Your task to perform on an android device: stop showing notifications on the lock screen Image 0: 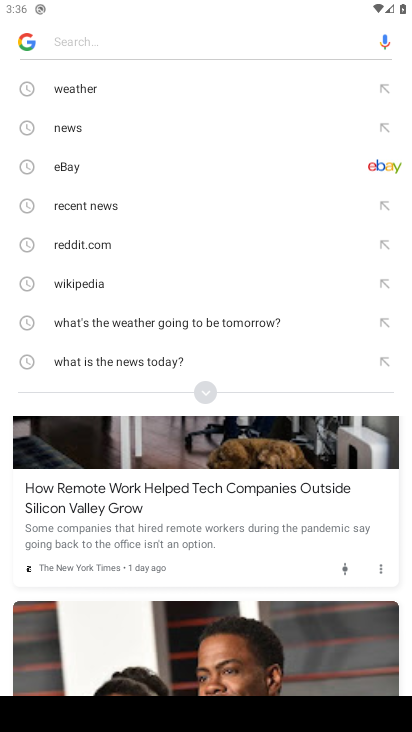
Step 0: press back button
Your task to perform on an android device: stop showing notifications on the lock screen Image 1: 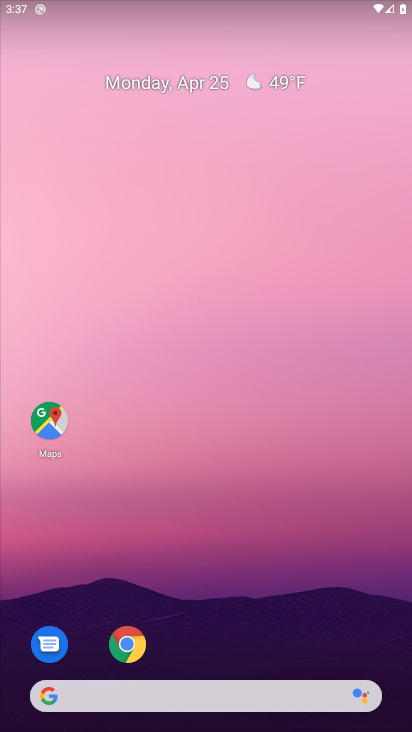
Step 1: drag from (270, 653) to (301, 213)
Your task to perform on an android device: stop showing notifications on the lock screen Image 2: 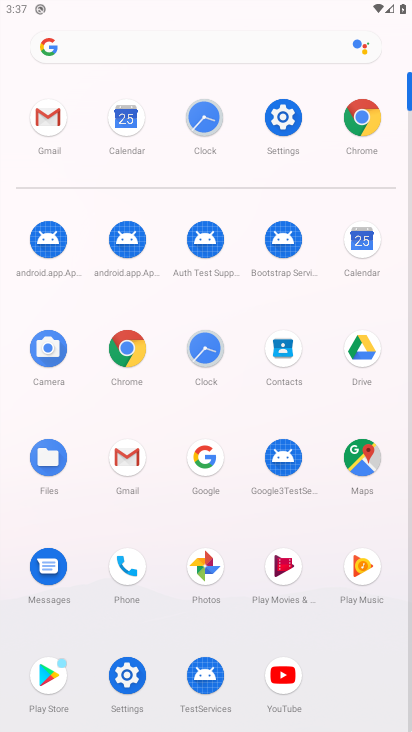
Step 2: click (289, 148)
Your task to perform on an android device: stop showing notifications on the lock screen Image 3: 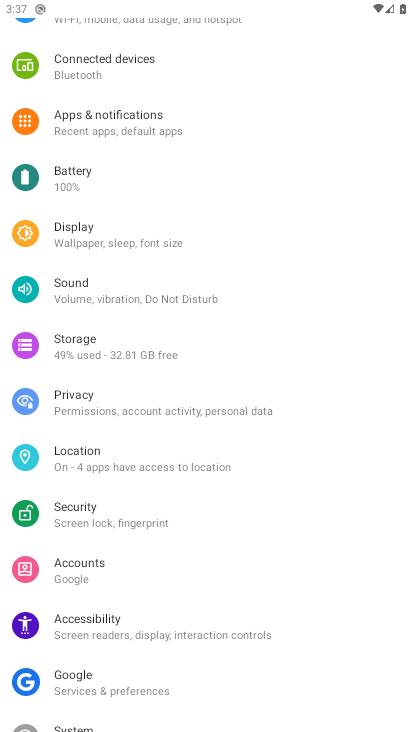
Step 3: click (139, 128)
Your task to perform on an android device: stop showing notifications on the lock screen Image 4: 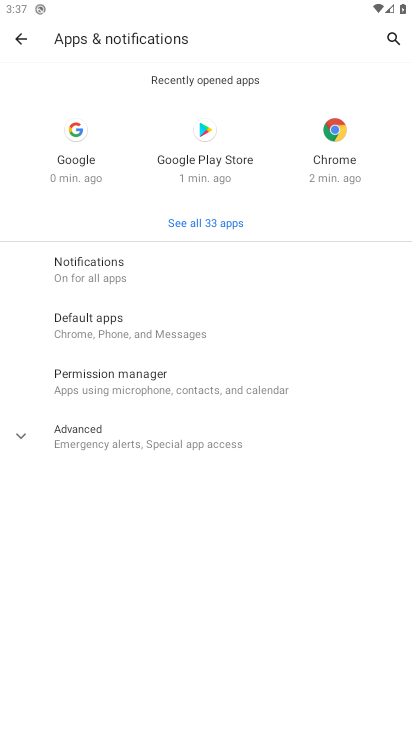
Step 4: click (131, 274)
Your task to perform on an android device: stop showing notifications on the lock screen Image 5: 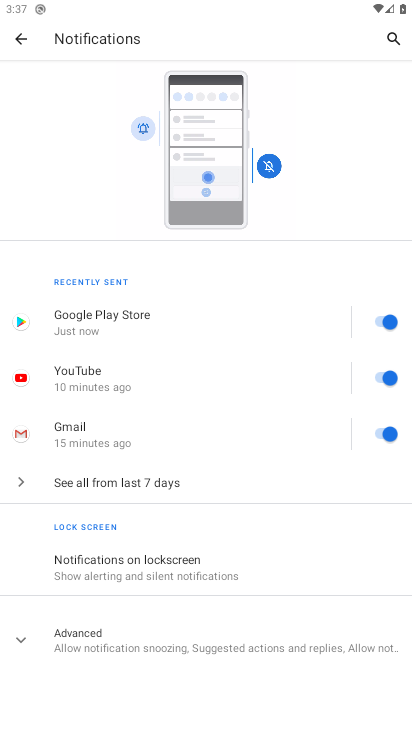
Step 5: click (262, 575)
Your task to perform on an android device: stop showing notifications on the lock screen Image 6: 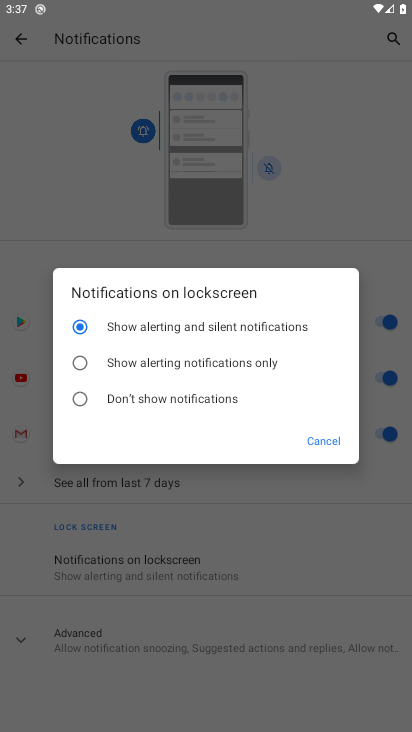
Step 6: click (177, 394)
Your task to perform on an android device: stop showing notifications on the lock screen Image 7: 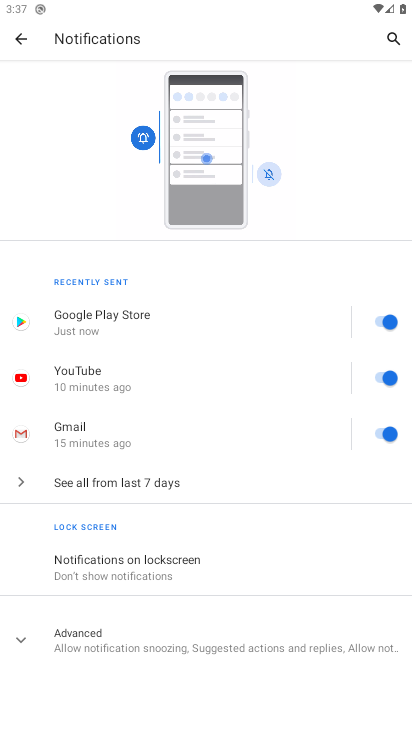
Step 7: task complete